Your task to perform on an android device: Turn on the flashlight Image 0: 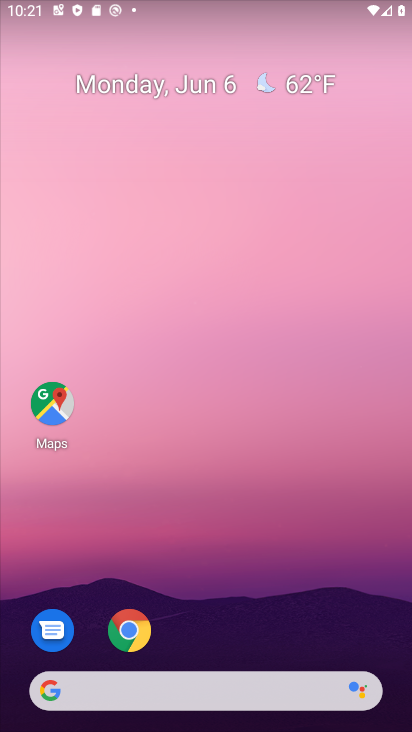
Step 0: press home button
Your task to perform on an android device: Turn on the flashlight Image 1: 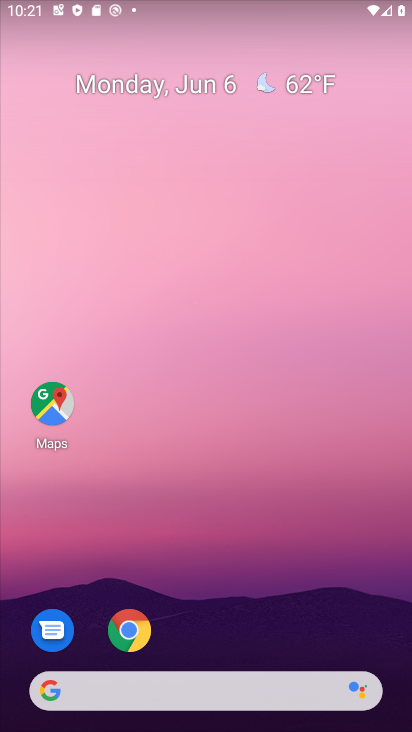
Step 1: drag from (383, 579) to (346, 119)
Your task to perform on an android device: Turn on the flashlight Image 2: 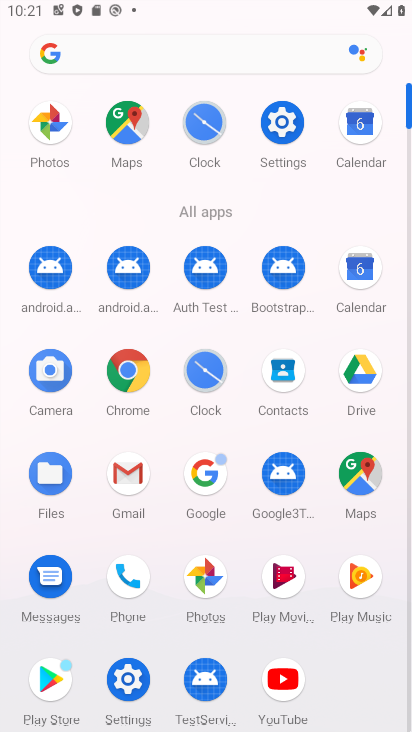
Step 2: click (285, 124)
Your task to perform on an android device: Turn on the flashlight Image 3: 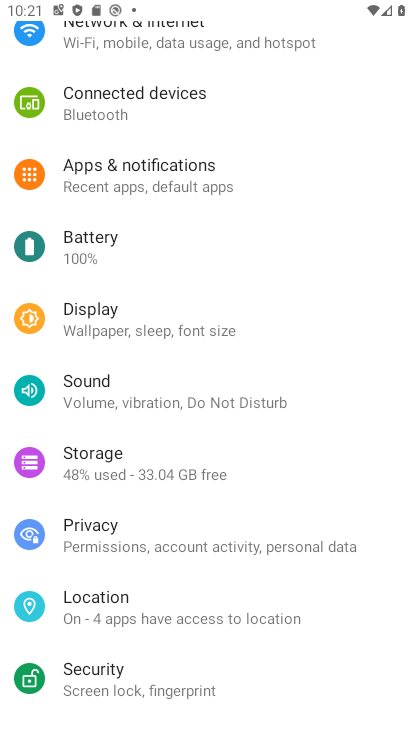
Step 3: drag from (269, 122) to (312, 445)
Your task to perform on an android device: Turn on the flashlight Image 4: 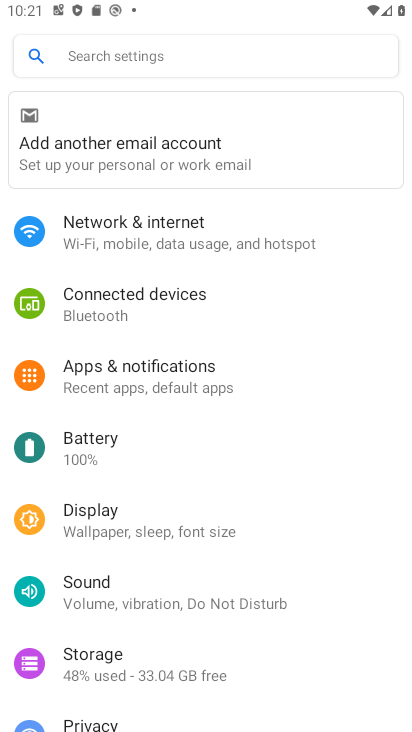
Step 4: click (193, 61)
Your task to perform on an android device: Turn on the flashlight Image 5: 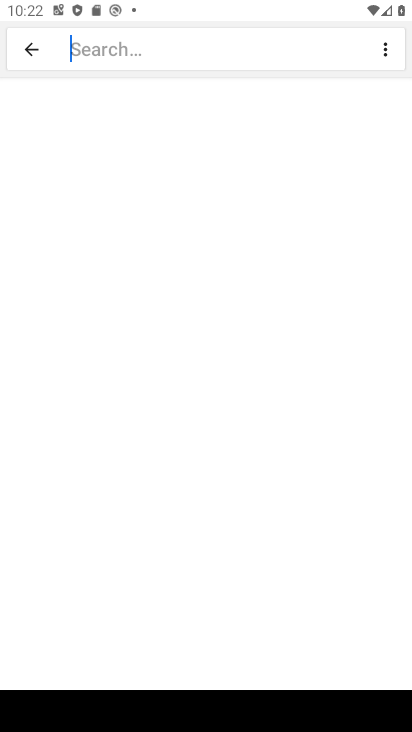
Step 5: type "flashlight"
Your task to perform on an android device: Turn on the flashlight Image 6: 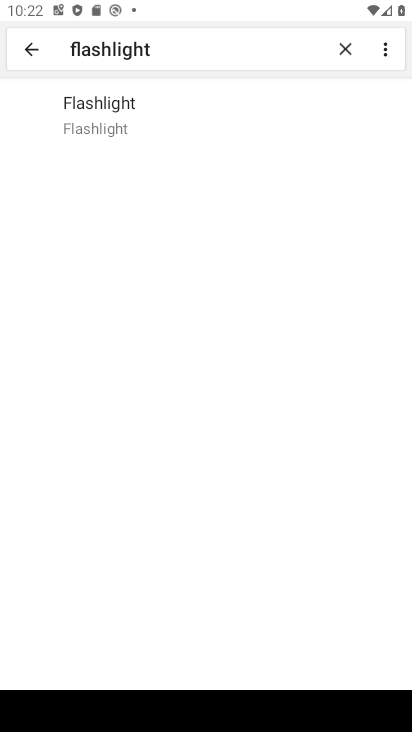
Step 6: click (96, 124)
Your task to perform on an android device: Turn on the flashlight Image 7: 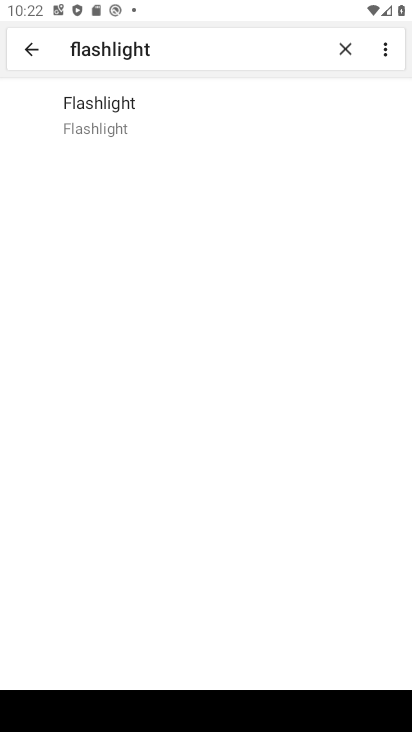
Step 7: task complete